Your task to perform on an android device: Show me productivity apps on the Play Store Image 0: 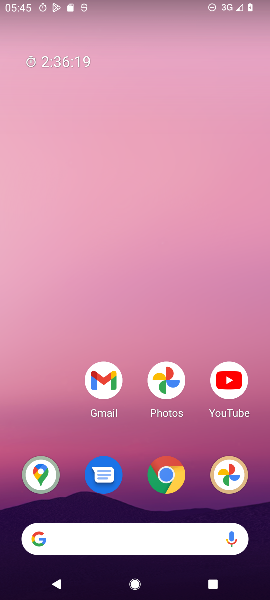
Step 0: press home button
Your task to perform on an android device: Show me productivity apps on the Play Store Image 1: 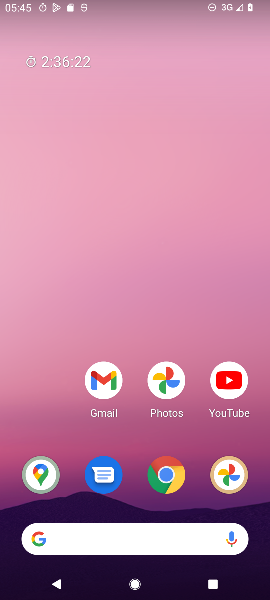
Step 1: drag from (72, 445) to (66, 158)
Your task to perform on an android device: Show me productivity apps on the Play Store Image 2: 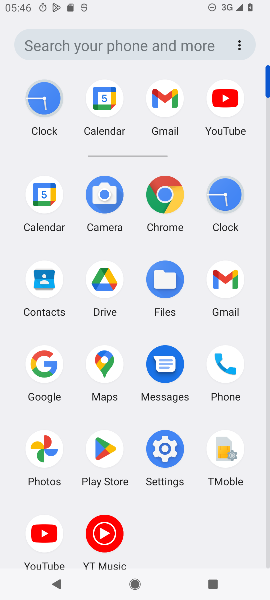
Step 2: click (106, 456)
Your task to perform on an android device: Show me productivity apps on the Play Store Image 3: 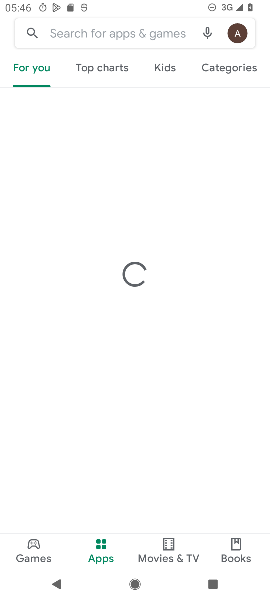
Step 3: task complete